Your task to perform on an android device: turn on location history Image 0: 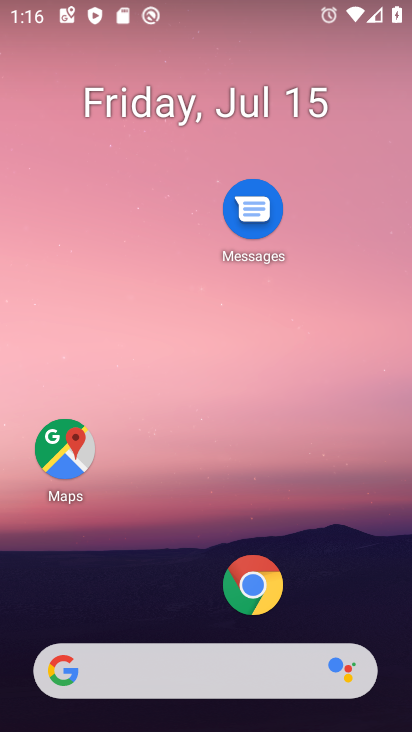
Step 0: click (62, 457)
Your task to perform on an android device: turn on location history Image 1: 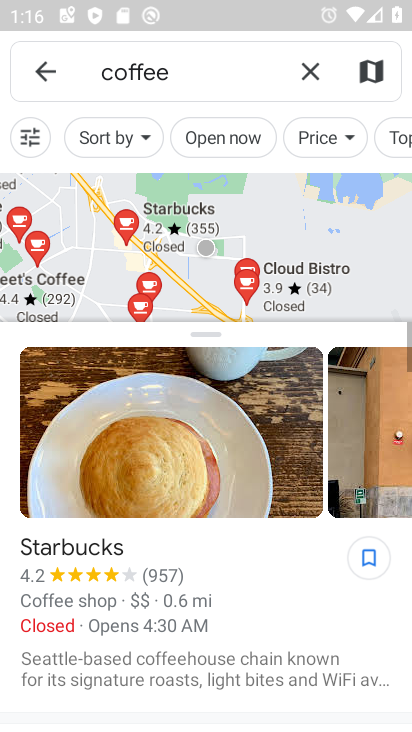
Step 1: click (49, 63)
Your task to perform on an android device: turn on location history Image 2: 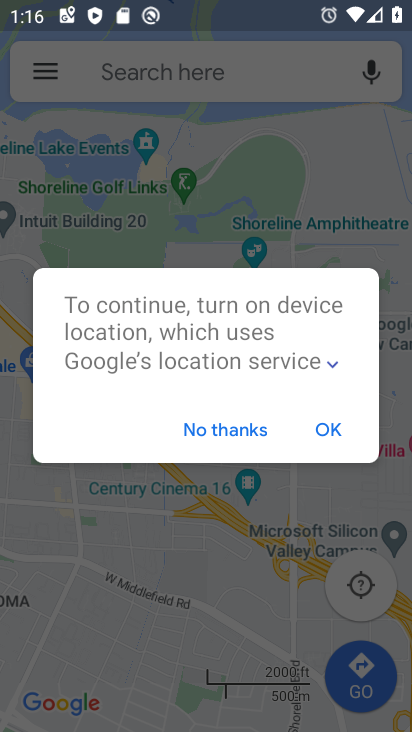
Step 2: click (47, 75)
Your task to perform on an android device: turn on location history Image 3: 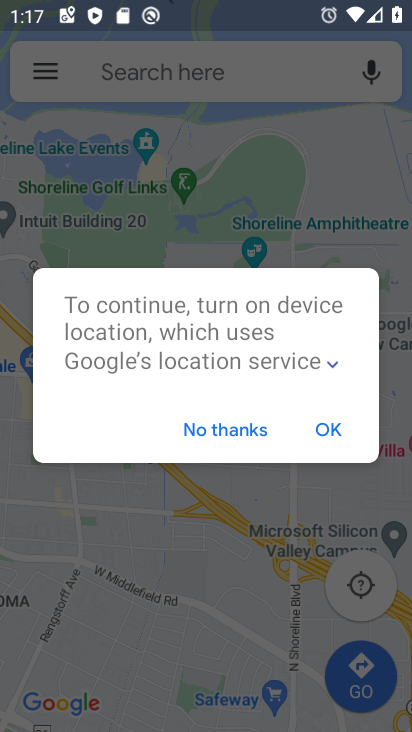
Step 3: click (318, 429)
Your task to perform on an android device: turn on location history Image 4: 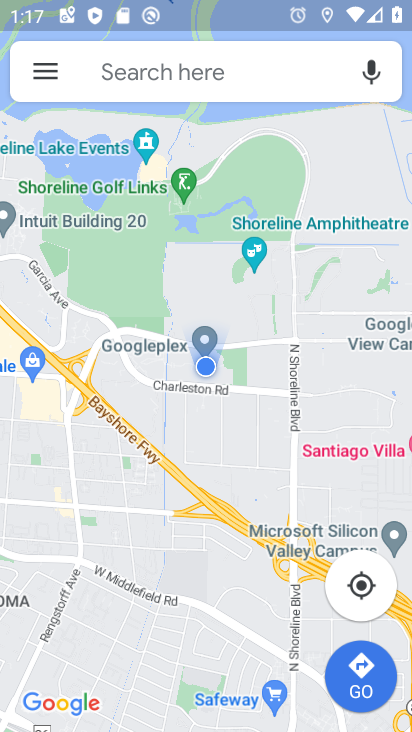
Step 4: click (43, 68)
Your task to perform on an android device: turn on location history Image 5: 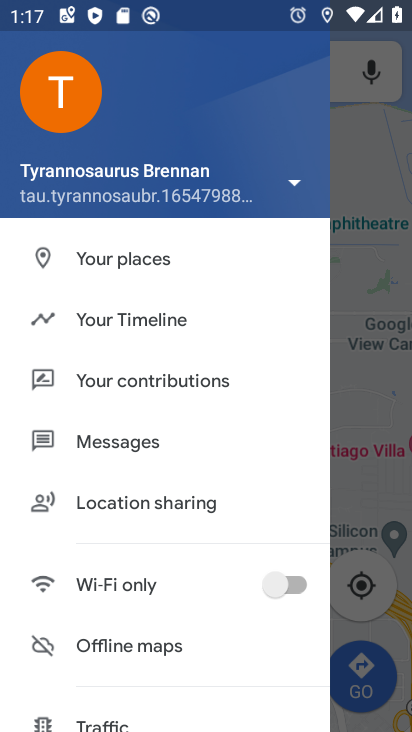
Step 5: click (175, 325)
Your task to perform on an android device: turn on location history Image 6: 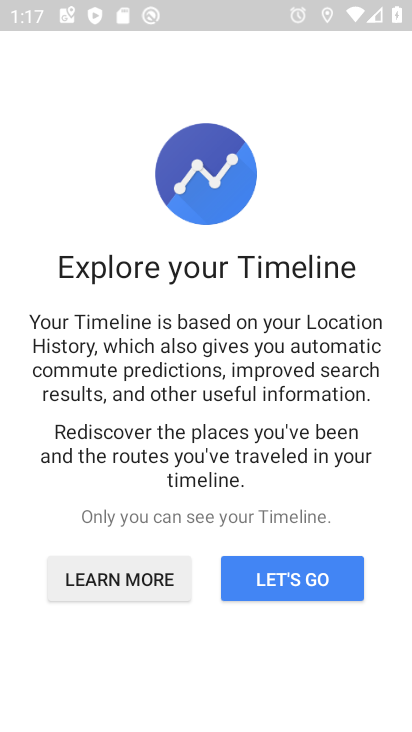
Step 6: click (311, 585)
Your task to perform on an android device: turn on location history Image 7: 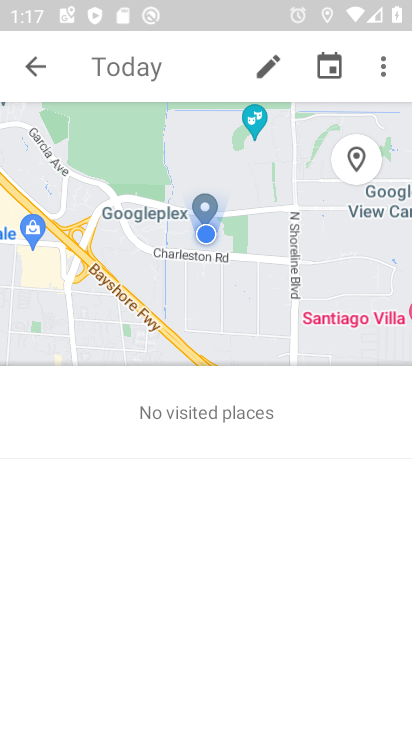
Step 7: click (382, 72)
Your task to perform on an android device: turn on location history Image 8: 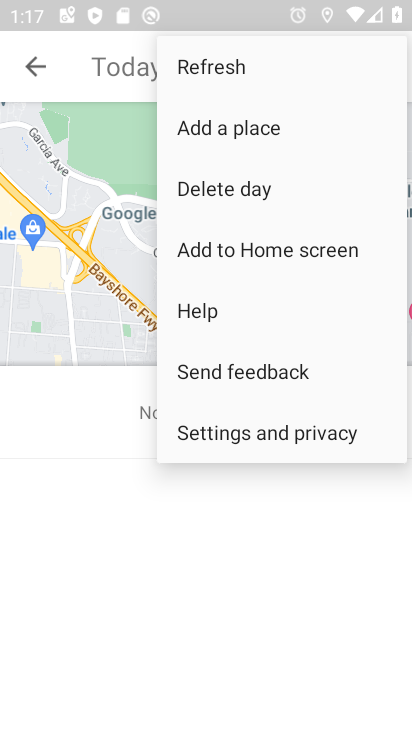
Step 8: click (258, 442)
Your task to perform on an android device: turn on location history Image 9: 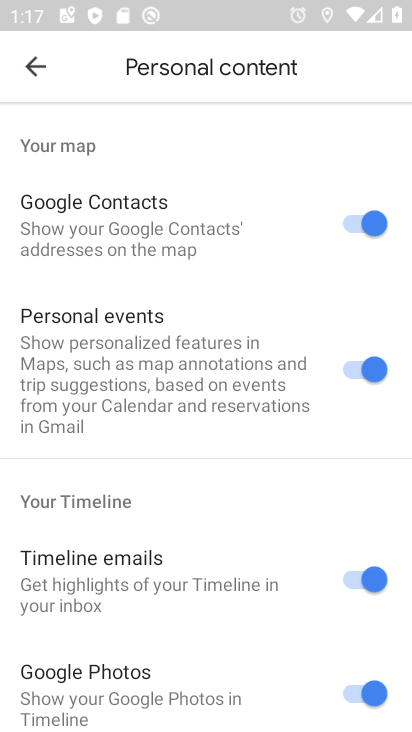
Step 9: drag from (227, 632) to (285, 176)
Your task to perform on an android device: turn on location history Image 10: 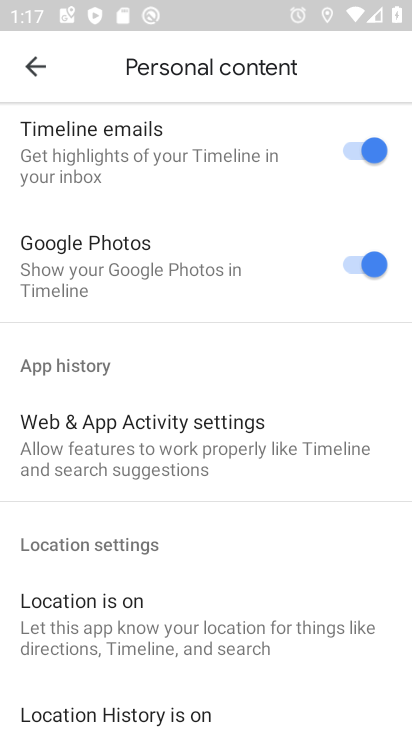
Step 10: drag from (208, 525) to (290, 78)
Your task to perform on an android device: turn on location history Image 11: 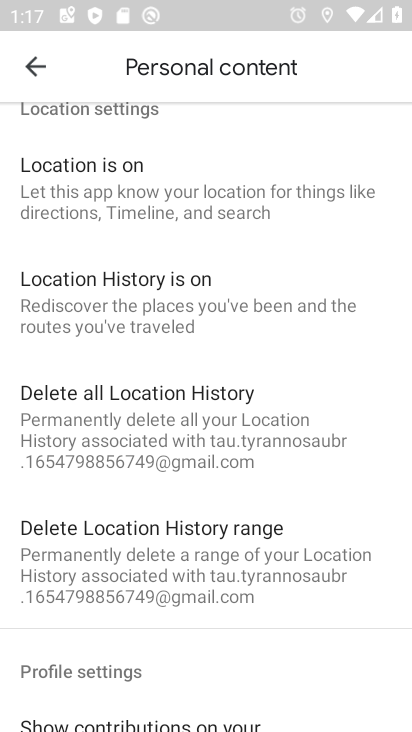
Step 11: click (177, 298)
Your task to perform on an android device: turn on location history Image 12: 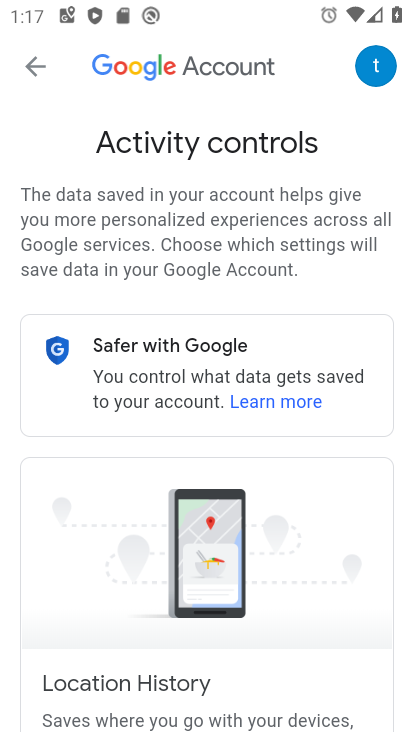
Step 12: task complete